Your task to perform on an android device: Go to wifi settings Image 0: 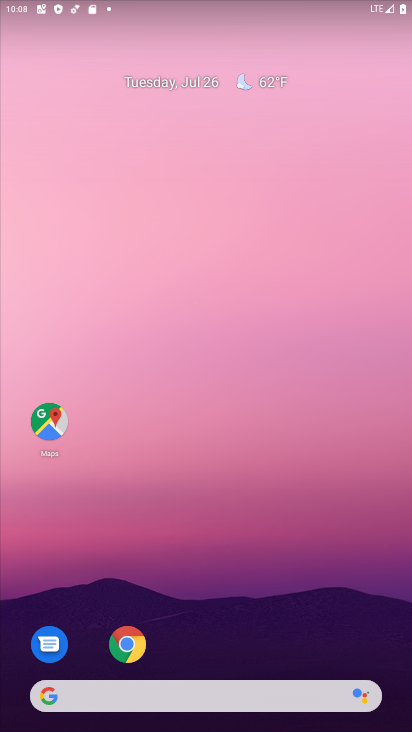
Step 0: drag from (255, 616) to (258, 2)
Your task to perform on an android device: Go to wifi settings Image 1: 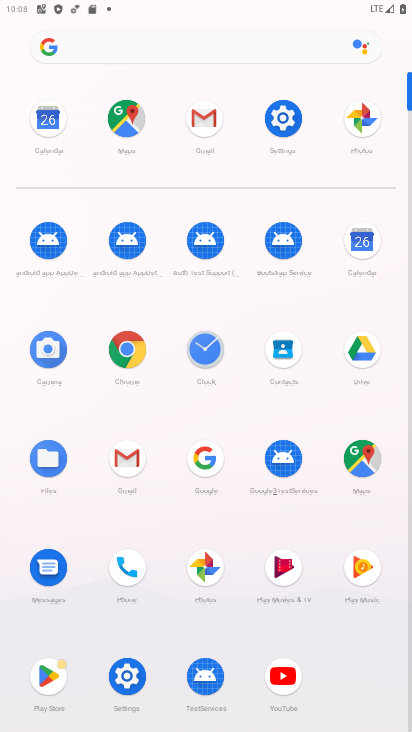
Step 1: click (281, 114)
Your task to perform on an android device: Go to wifi settings Image 2: 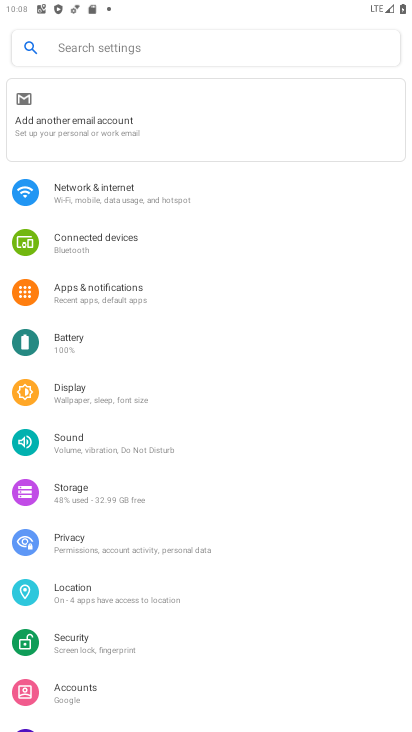
Step 2: click (83, 198)
Your task to perform on an android device: Go to wifi settings Image 3: 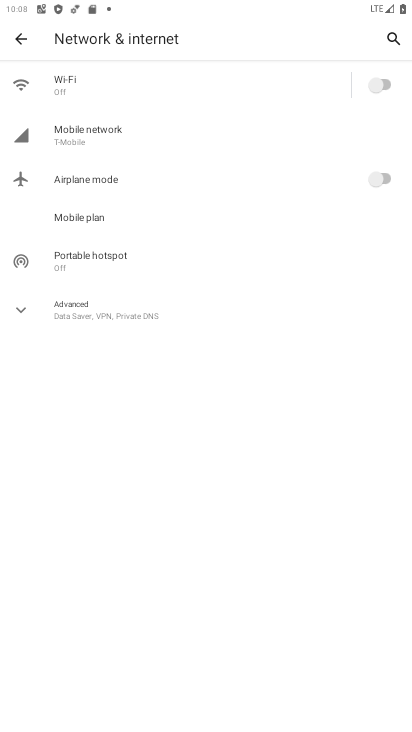
Step 3: click (26, 93)
Your task to perform on an android device: Go to wifi settings Image 4: 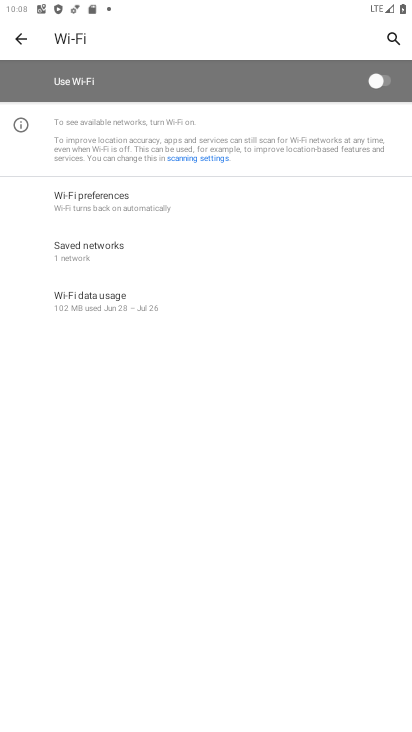
Step 4: task complete